Your task to perform on an android device: open app "Walmart Shopping & Grocery" (install if not already installed) Image 0: 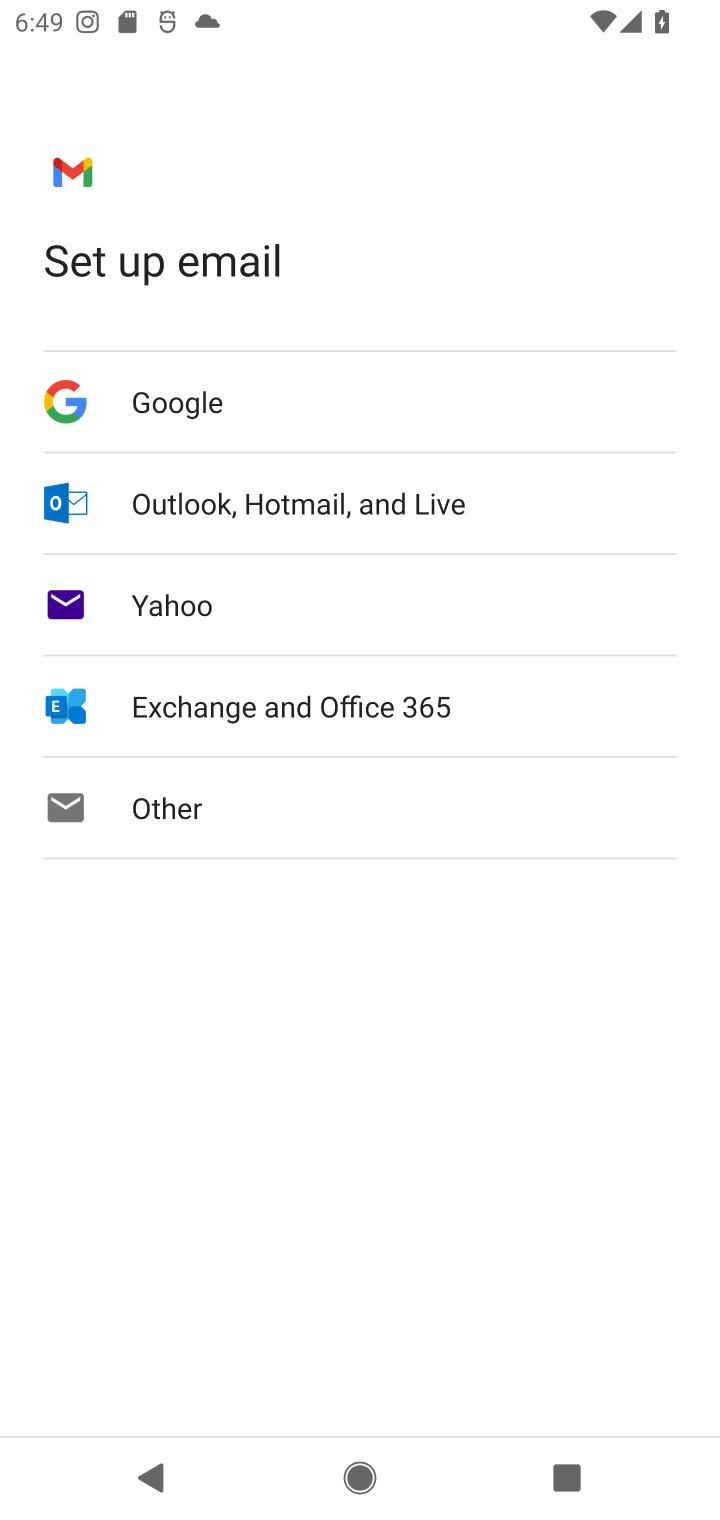
Step 0: press home button
Your task to perform on an android device: open app "Walmart Shopping & Grocery" (install if not already installed) Image 1: 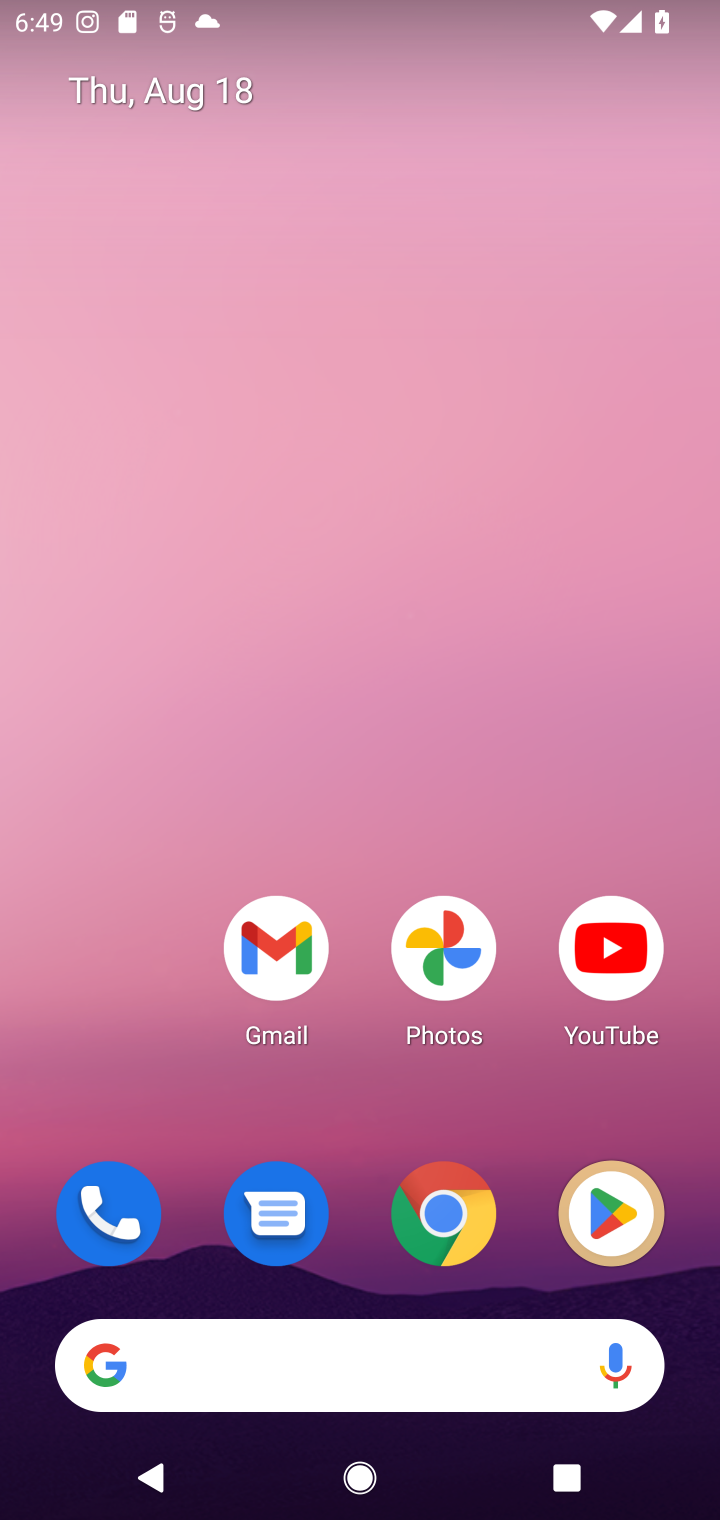
Step 1: click (588, 1202)
Your task to perform on an android device: open app "Walmart Shopping & Grocery" (install if not already installed) Image 2: 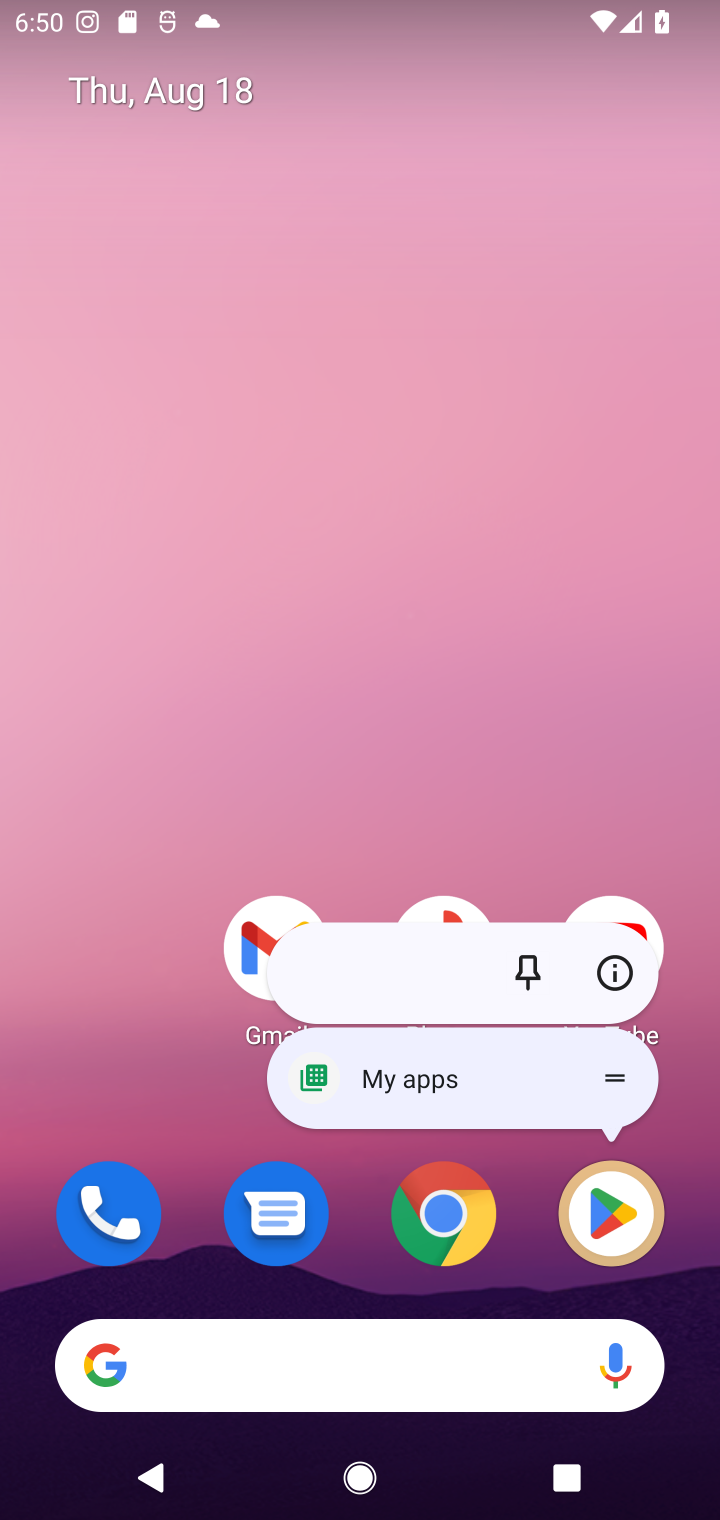
Step 2: click (356, 621)
Your task to perform on an android device: open app "Walmart Shopping & Grocery" (install if not already installed) Image 3: 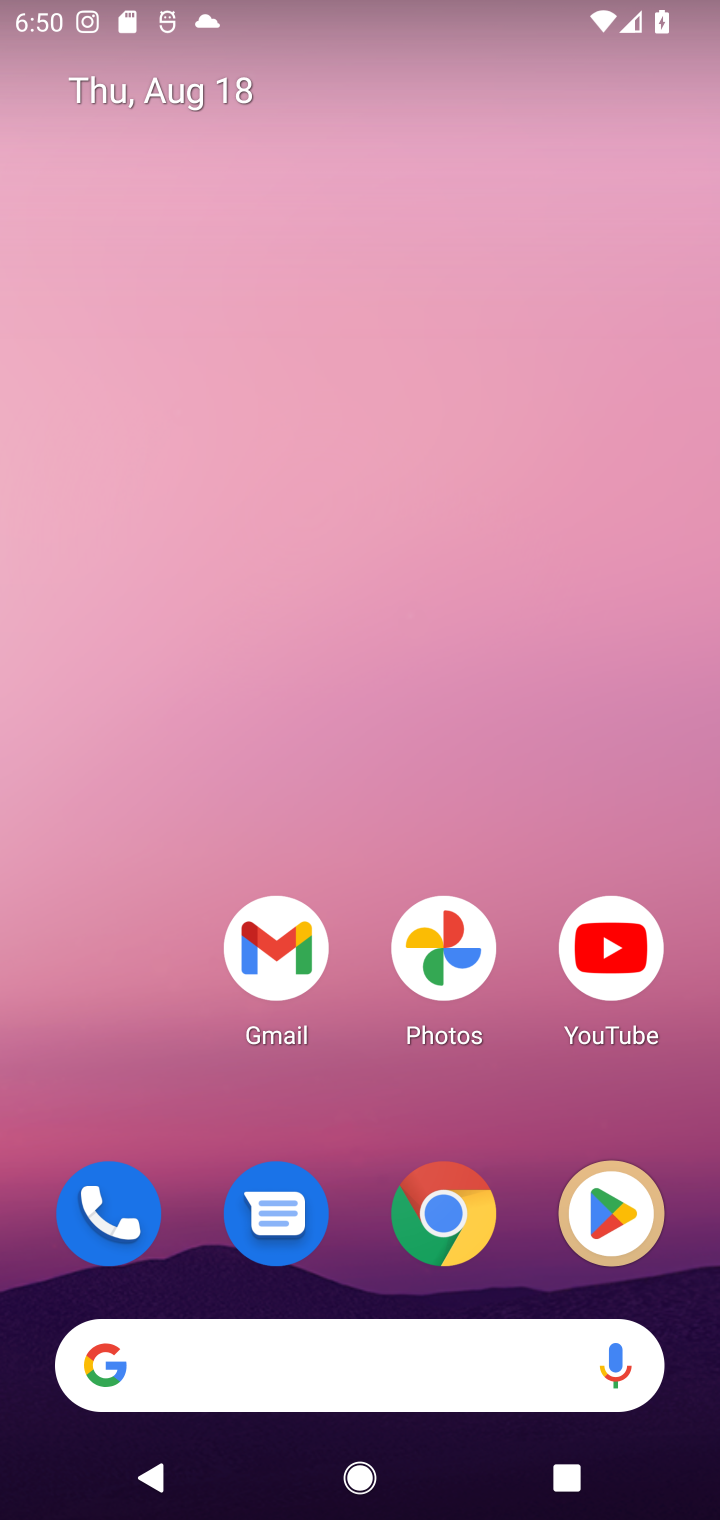
Step 3: drag from (134, 1020) to (250, 137)
Your task to perform on an android device: open app "Walmart Shopping & Grocery" (install if not already installed) Image 4: 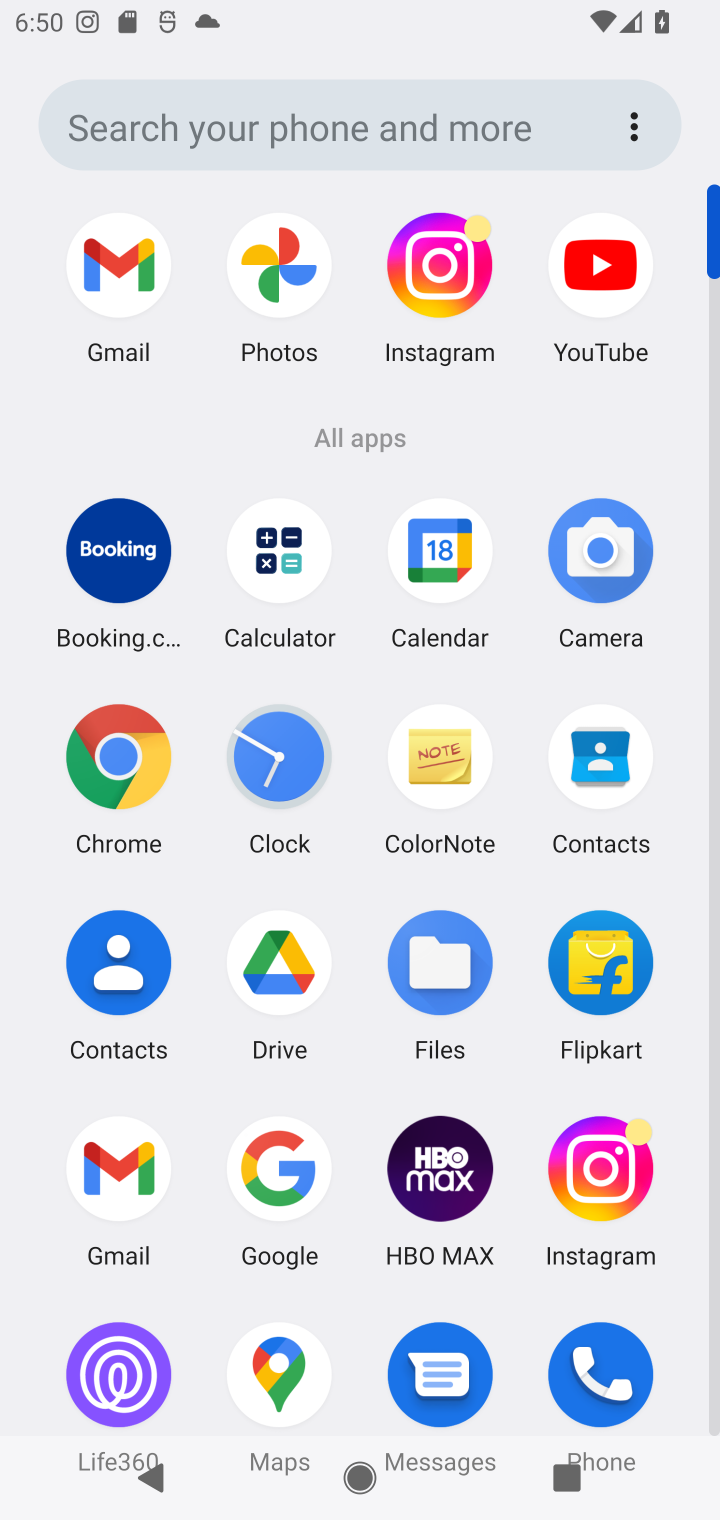
Step 4: drag from (338, 1104) to (358, 250)
Your task to perform on an android device: open app "Walmart Shopping & Grocery" (install if not already installed) Image 5: 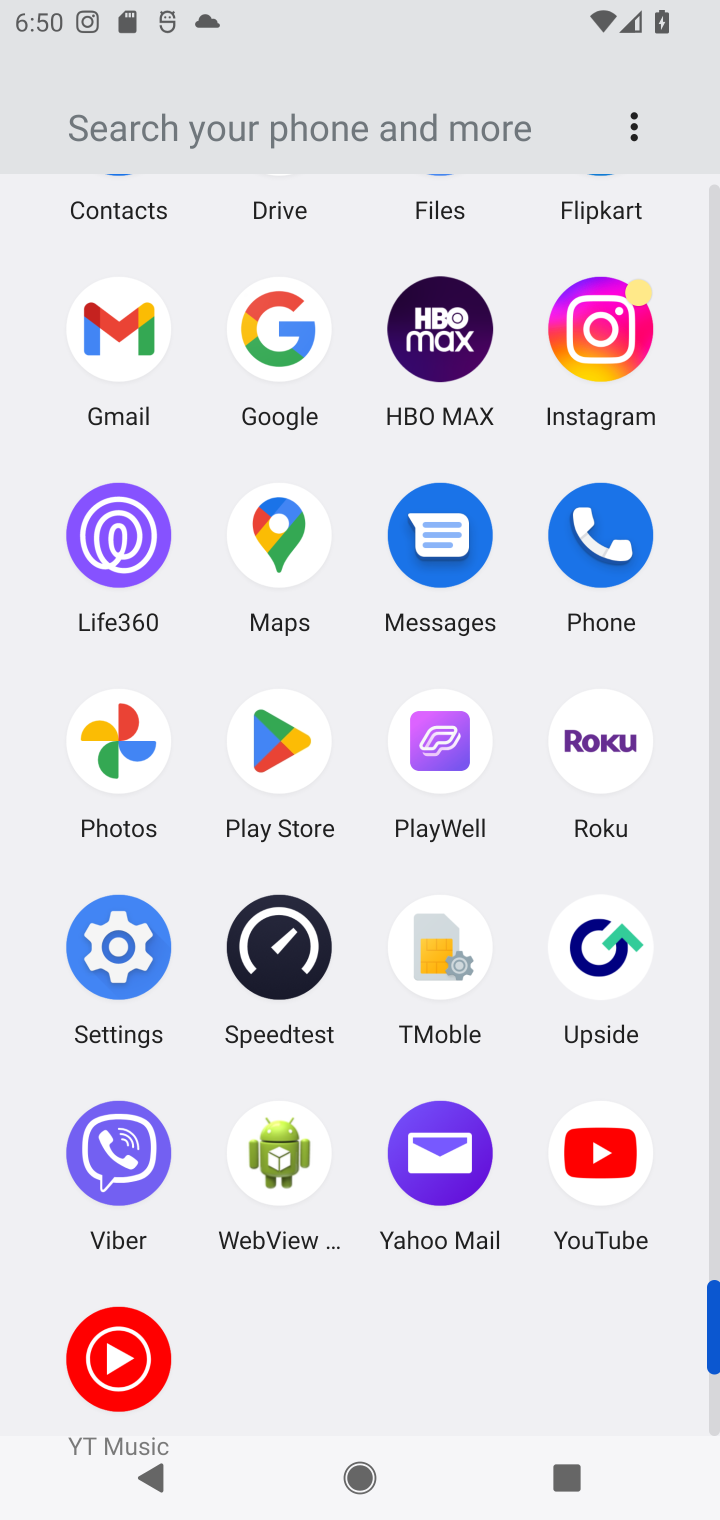
Step 5: click (282, 737)
Your task to perform on an android device: open app "Walmart Shopping & Grocery" (install if not already installed) Image 6: 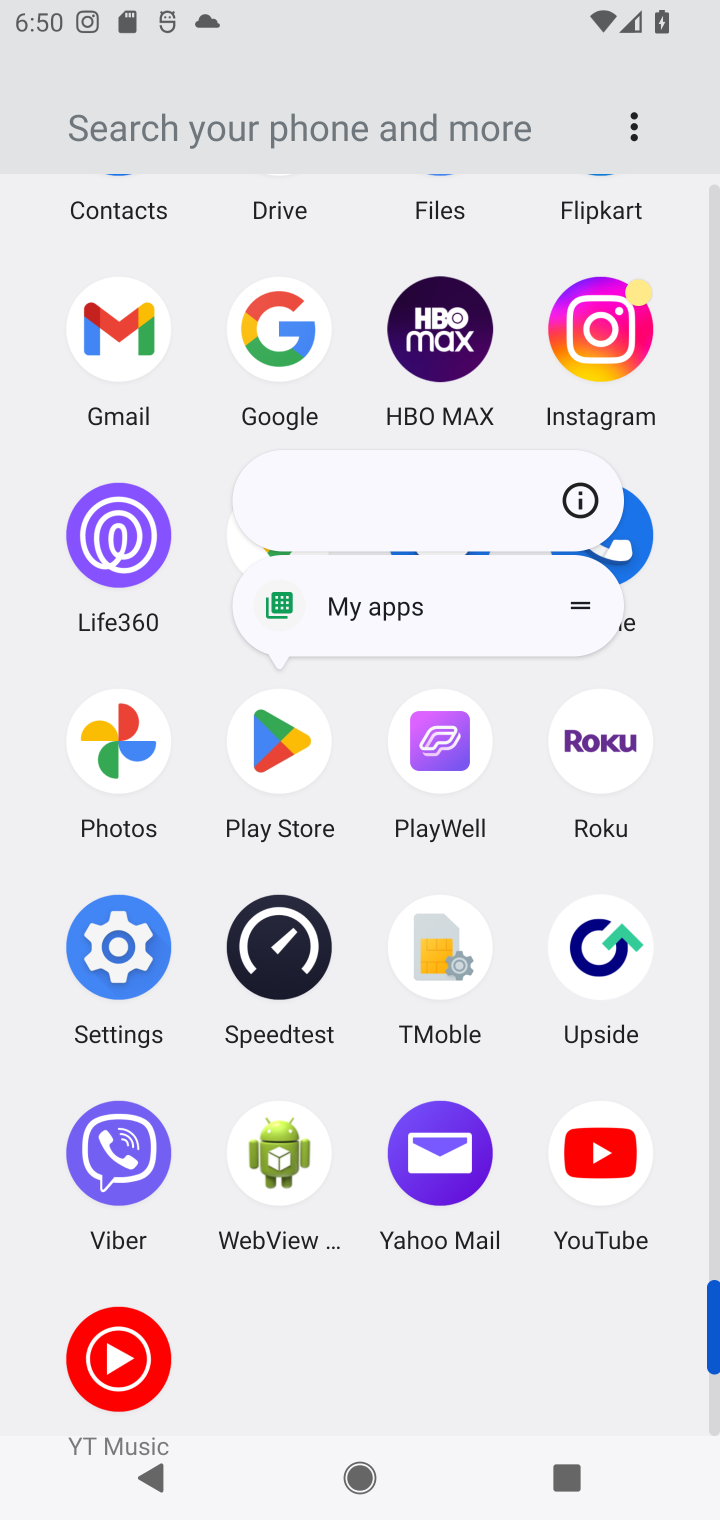
Step 6: click (259, 729)
Your task to perform on an android device: open app "Walmart Shopping & Grocery" (install if not already installed) Image 7: 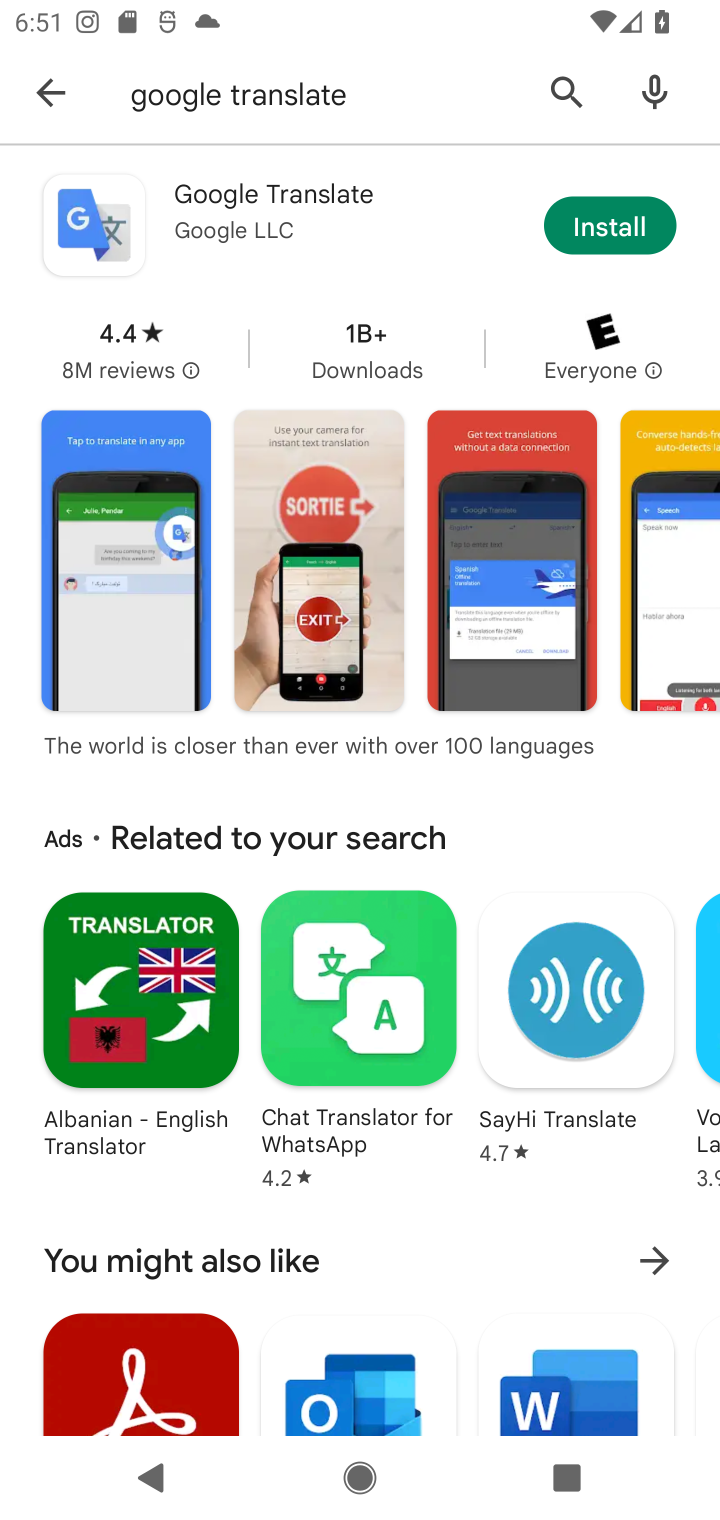
Step 7: click (573, 78)
Your task to perform on an android device: open app "Walmart Shopping & Grocery" (install if not already installed) Image 8: 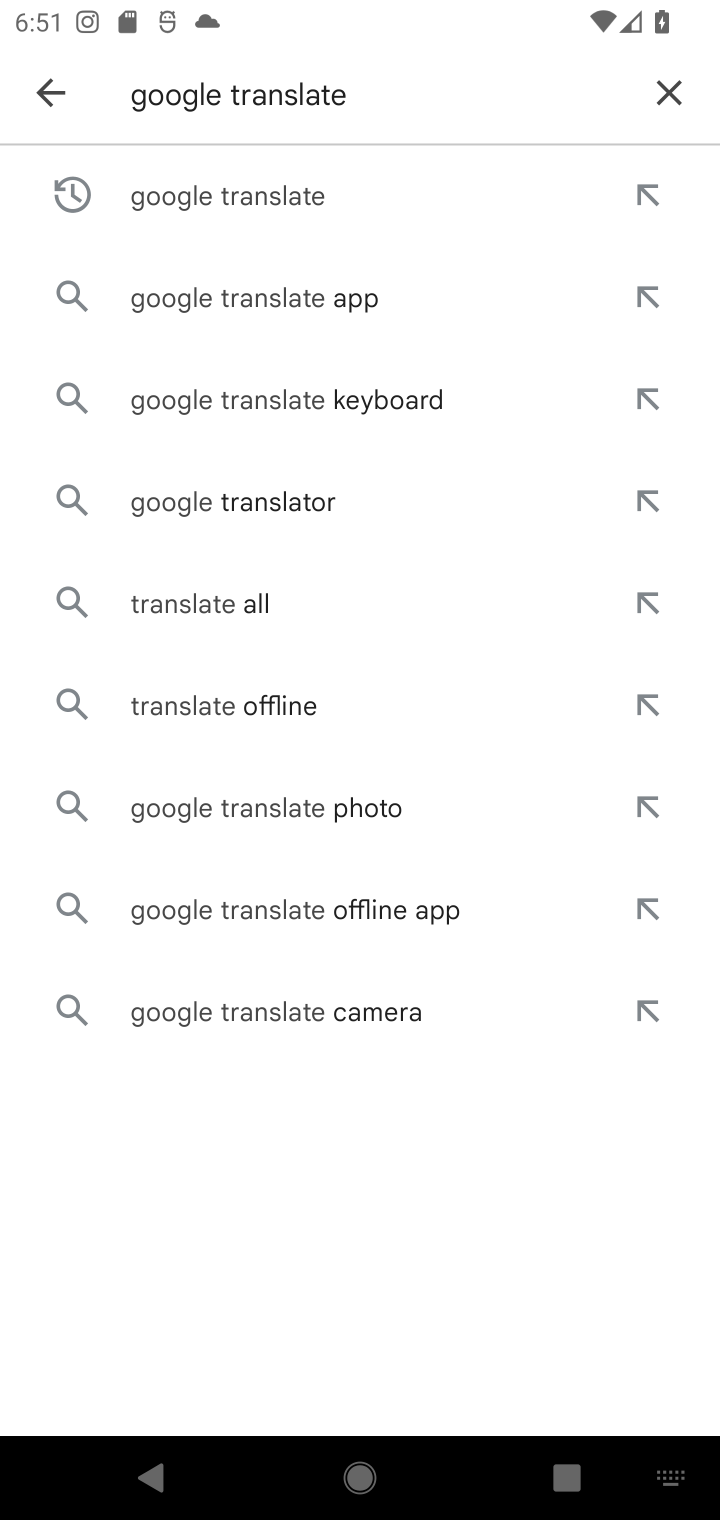
Step 8: click (655, 91)
Your task to perform on an android device: open app "Walmart Shopping & Grocery" (install if not already installed) Image 9: 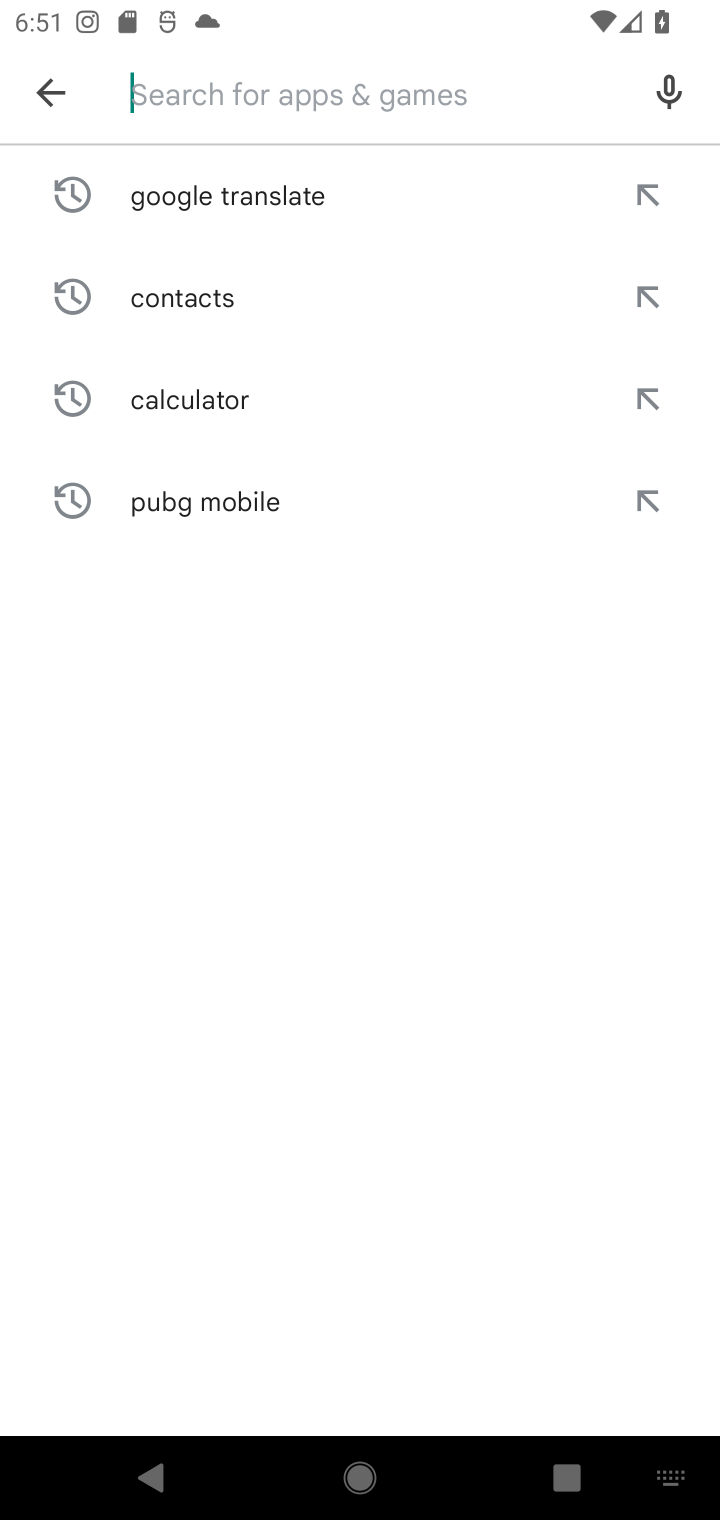
Step 9: type "Walmart Shopping & Grocery"
Your task to perform on an android device: open app "Walmart Shopping & Grocery" (install if not already installed) Image 10: 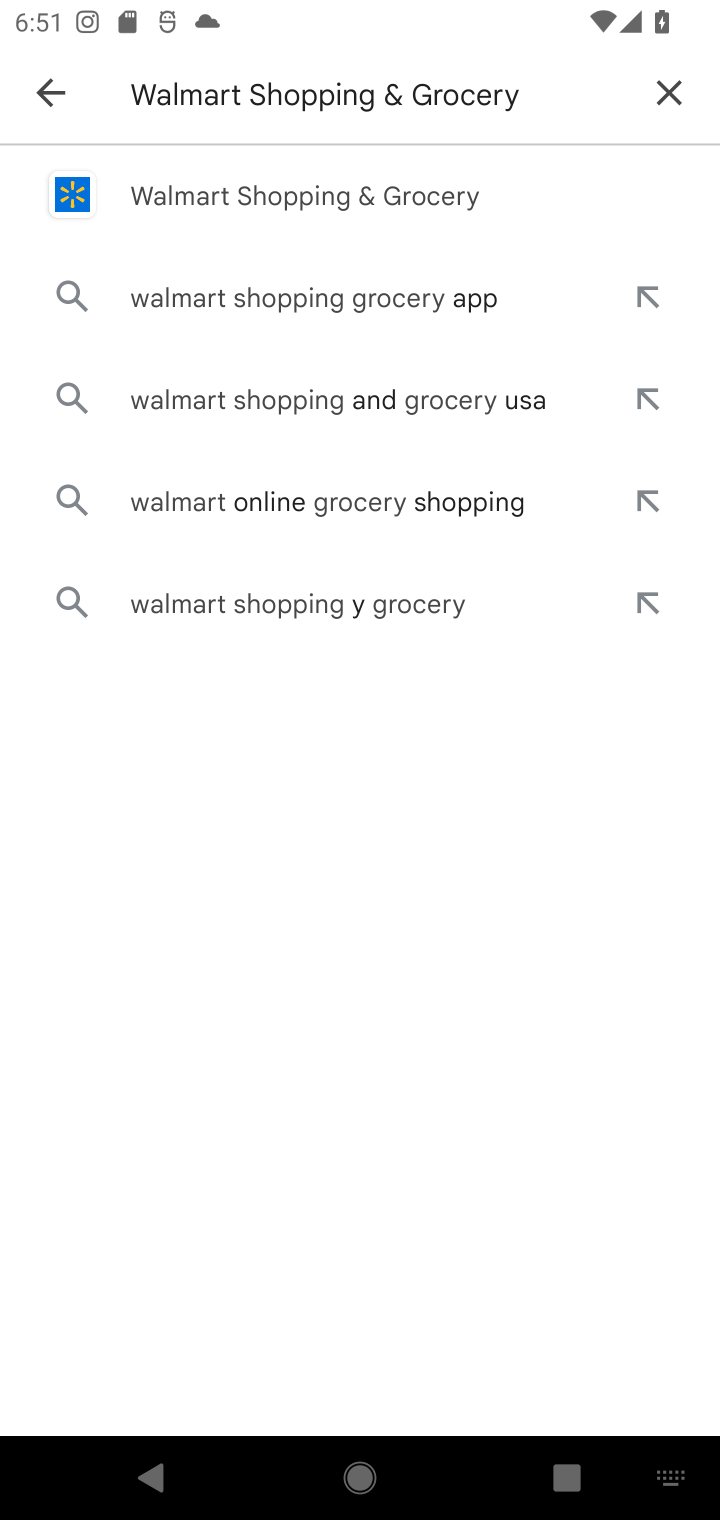
Step 10: click (267, 191)
Your task to perform on an android device: open app "Walmart Shopping & Grocery" (install if not already installed) Image 11: 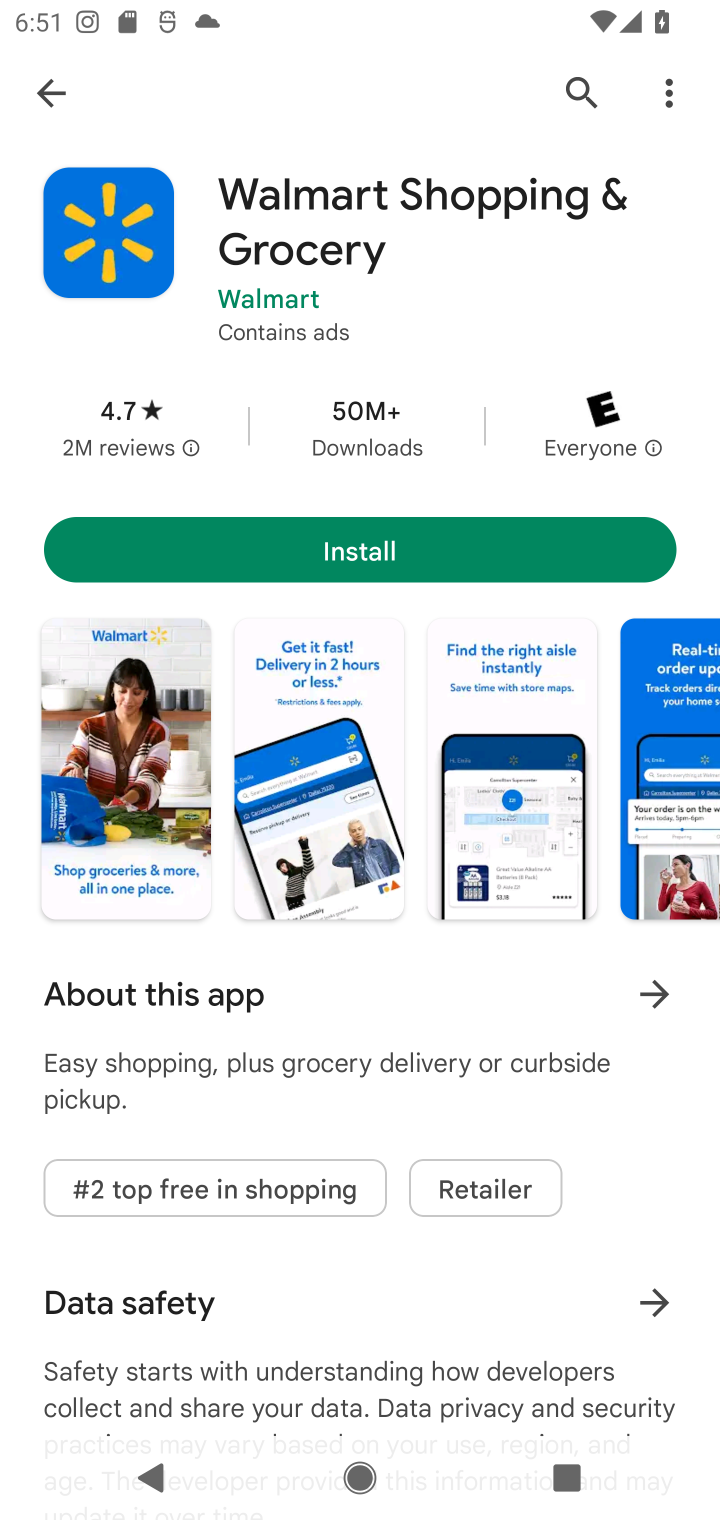
Step 11: click (357, 560)
Your task to perform on an android device: open app "Walmart Shopping & Grocery" (install if not already installed) Image 12: 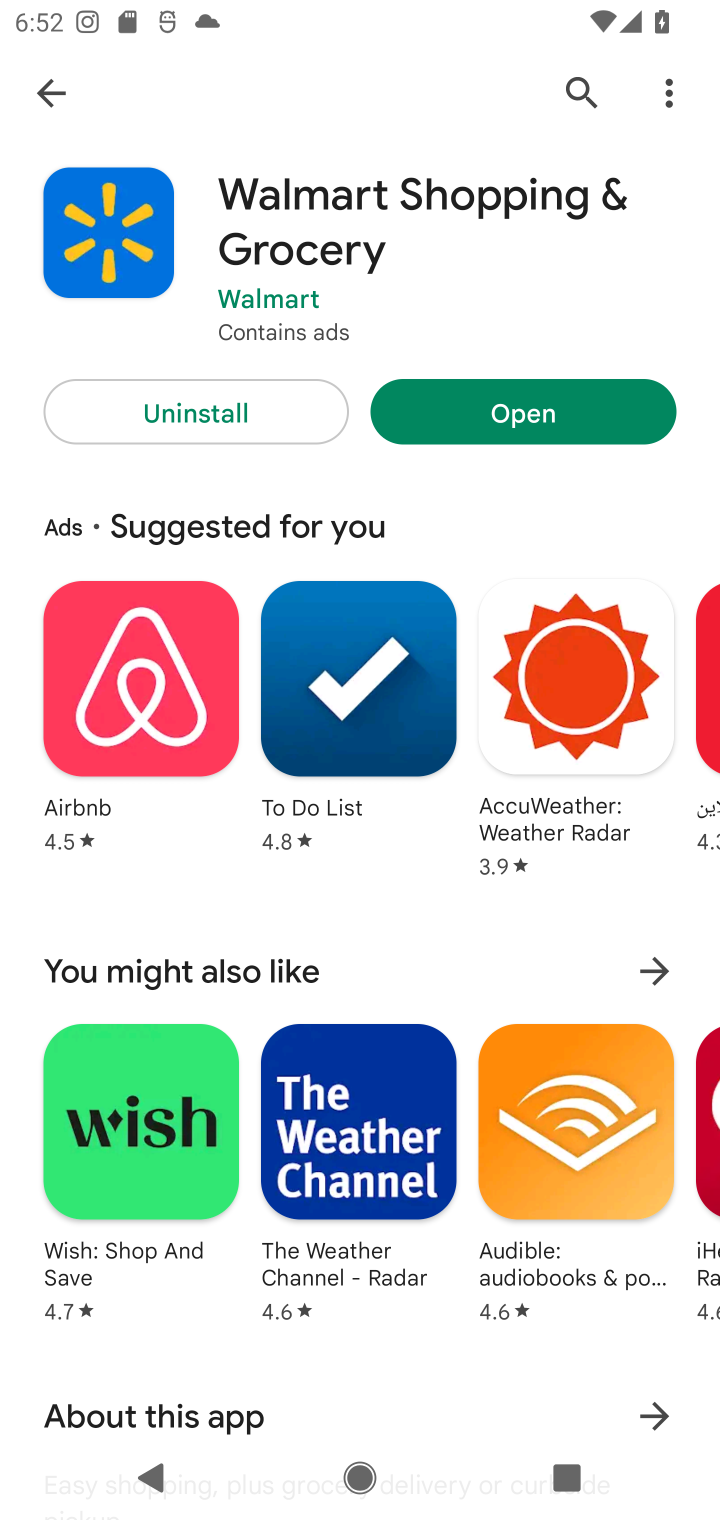
Step 12: click (517, 424)
Your task to perform on an android device: open app "Walmart Shopping & Grocery" (install if not already installed) Image 13: 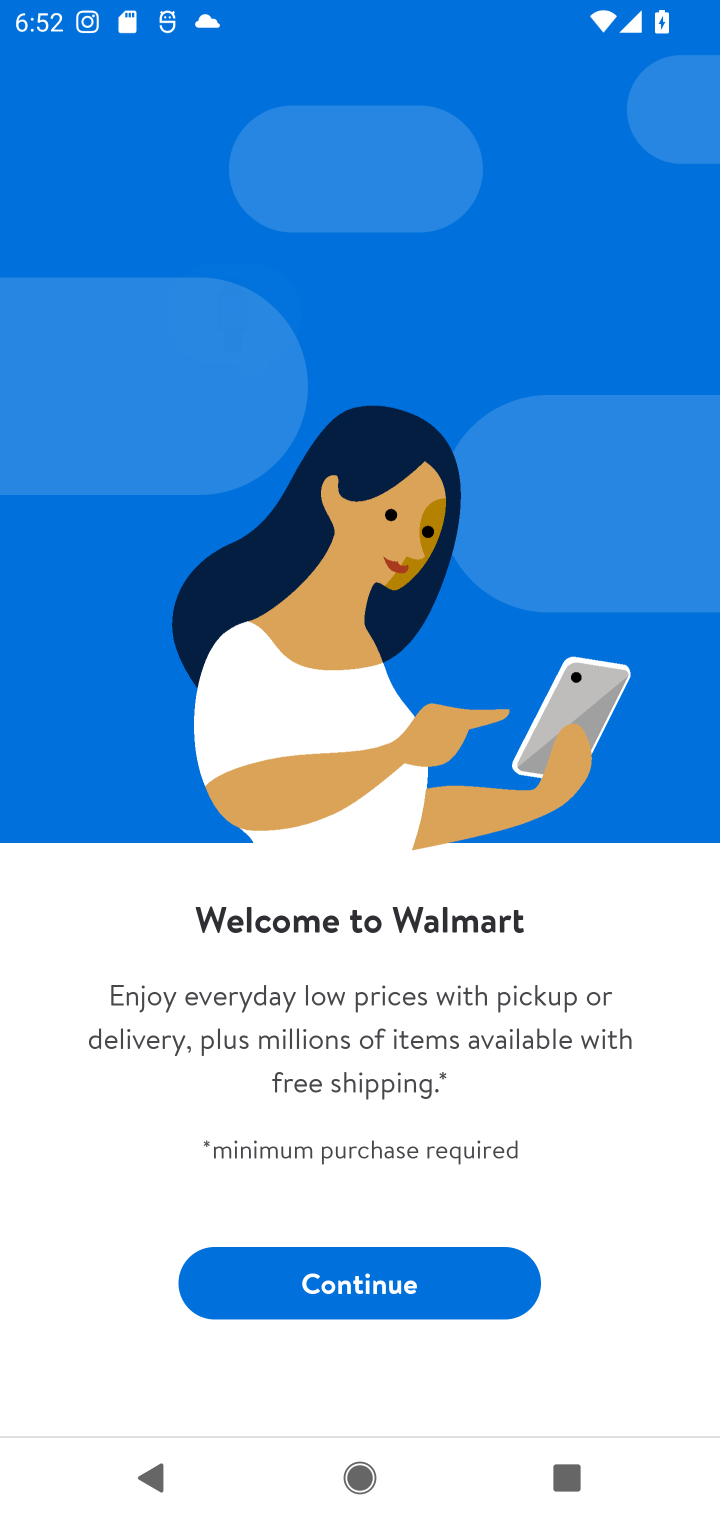
Step 13: task complete